Your task to perform on an android device: Go to Reddit.com Image 0: 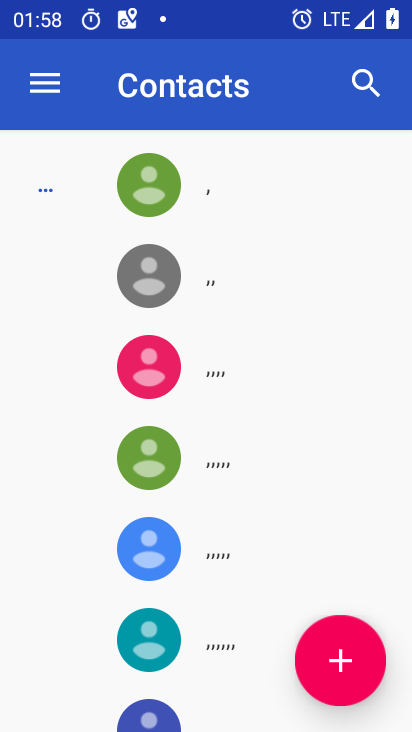
Step 0: press home button
Your task to perform on an android device: Go to Reddit.com Image 1: 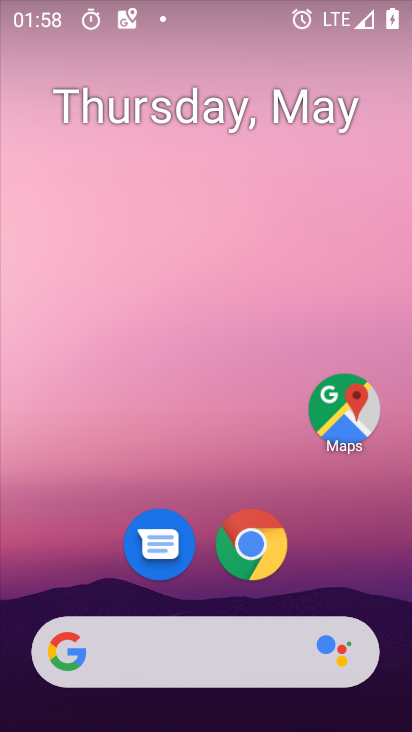
Step 1: drag from (358, 571) to (372, 96)
Your task to perform on an android device: Go to Reddit.com Image 2: 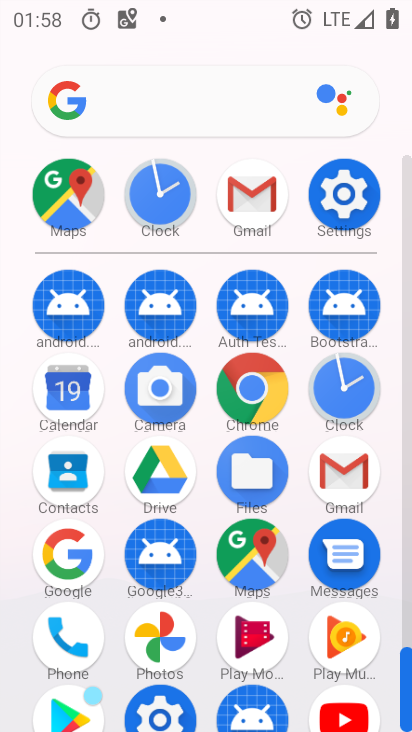
Step 2: click (272, 389)
Your task to perform on an android device: Go to Reddit.com Image 3: 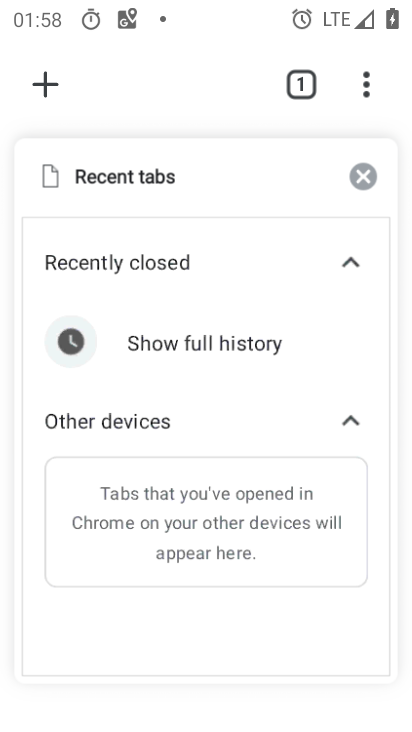
Step 3: press back button
Your task to perform on an android device: Go to Reddit.com Image 4: 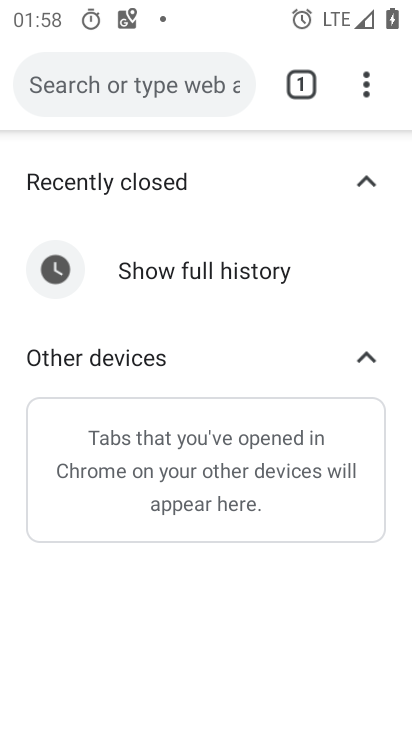
Step 4: click (199, 81)
Your task to perform on an android device: Go to Reddit.com Image 5: 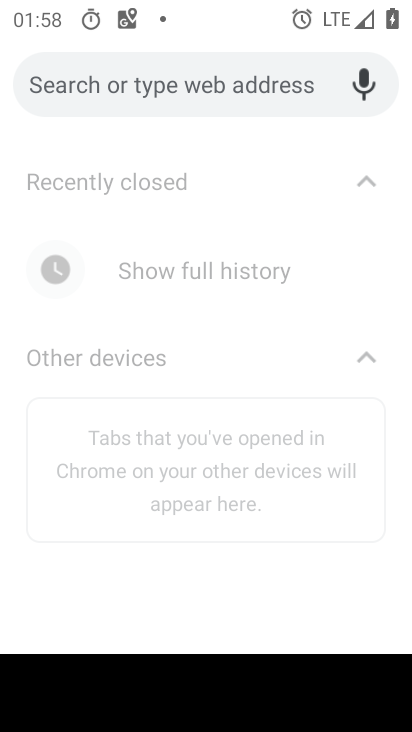
Step 5: type "reddit"
Your task to perform on an android device: Go to Reddit.com Image 6: 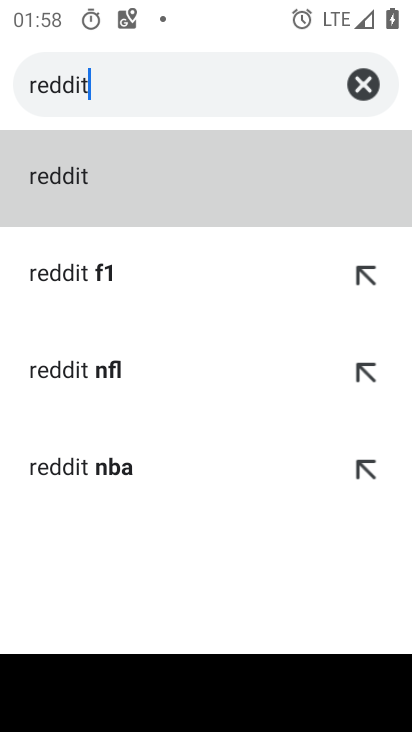
Step 6: click (186, 211)
Your task to perform on an android device: Go to Reddit.com Image 7: 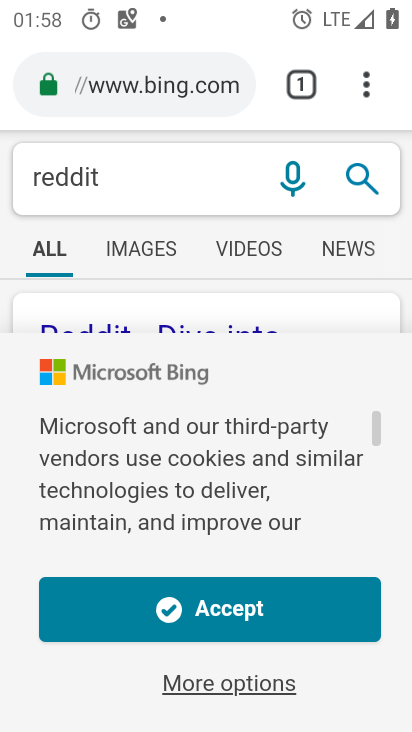
Step 7: click (283, 627)
Your task to perform on an android device: Go to Reddit.com Image 8: 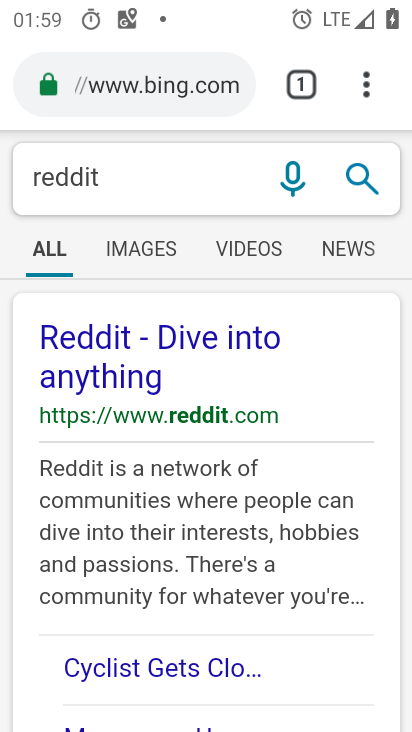
Step 8: task complete